Your task to perform on an android device: open device folders in google photos Image 0: 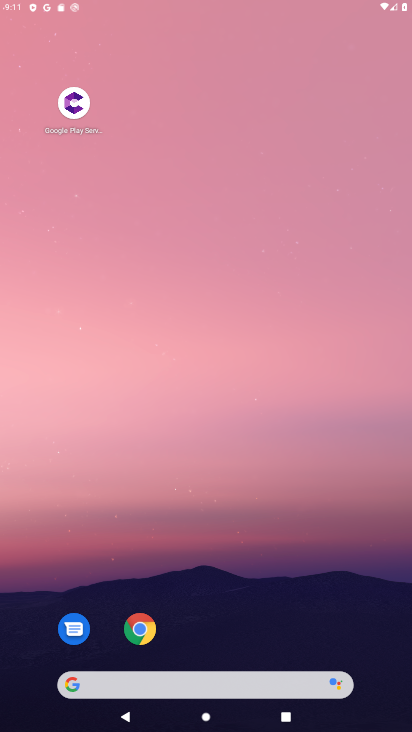
Step 0: drag from (215, 376) to (235, 150)
Your task to perform on an android device: open device folders in google photos Image 1: 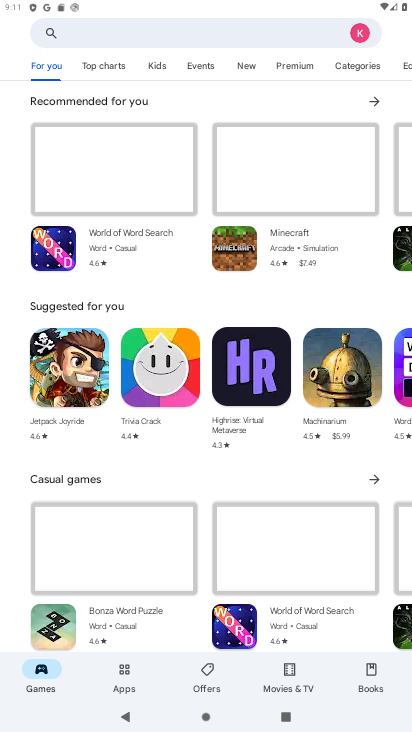
Step 1: press home button
Your task to perform on an android device: open device folders in google photos Image 2: 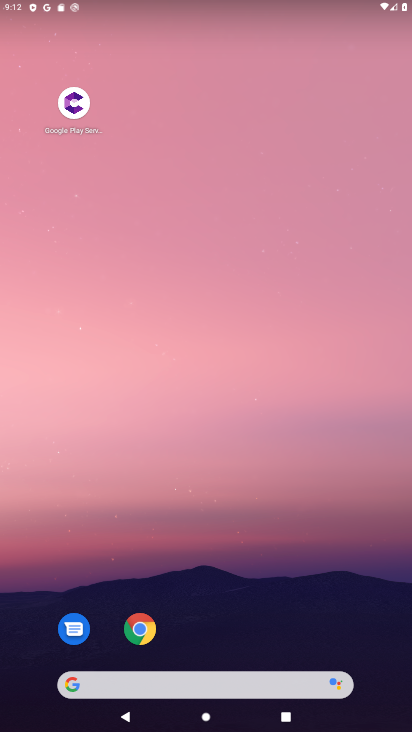
Step 2: drag from (248, 631) to (261, 37)
Your task to perform on an android device: open device folders in google photos Image 3: 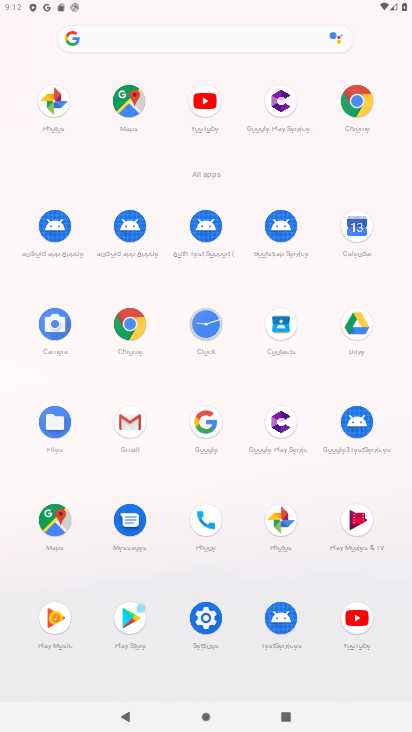
Step 3: click (285, 538)
Your task to perform on an android device: open device folders in google photos Image 4: 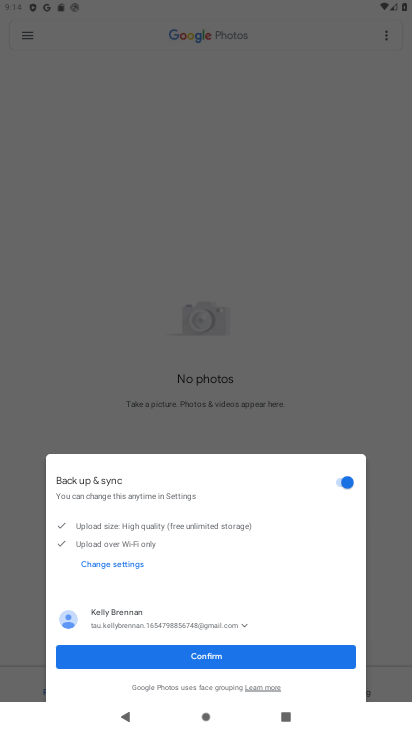
Step 4: press home button
Your task to perform on an android device: open device folders in google photos Image 5: 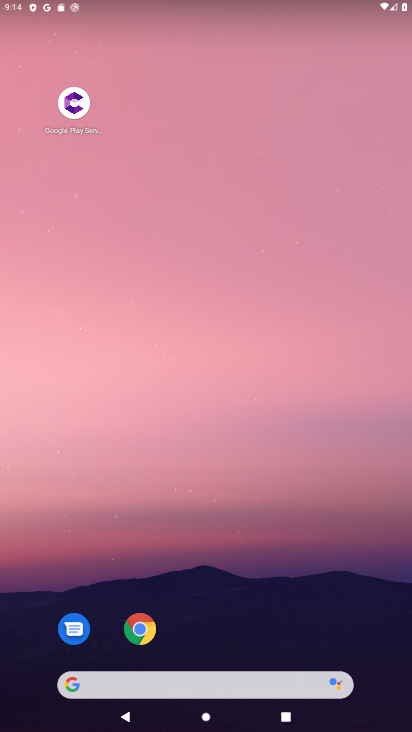
Step 5: drag from (272, 621) to (307, 93)
Your task to perform on an android device: open device folders in google photos Image 6: 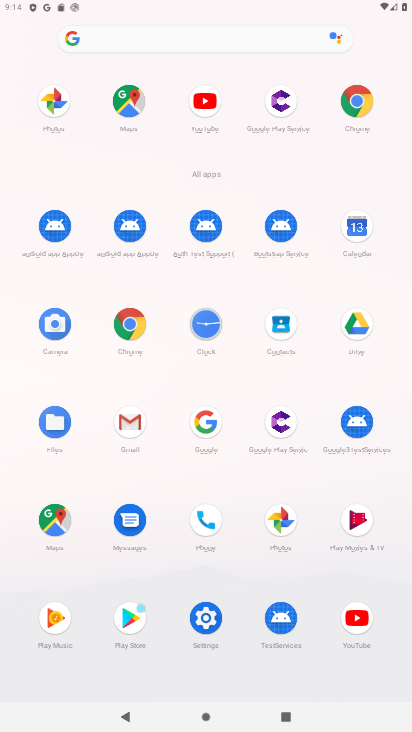
Step 6: click (43, 99)
Your task to perform on an android device: open device folders in google photos Image 7: 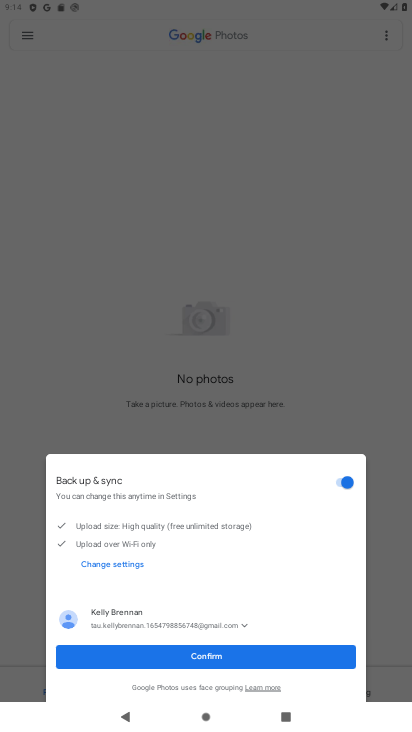
Step 7: click (196, 654)
Your task to perform on an android device: open device folders in google photos Image 8: 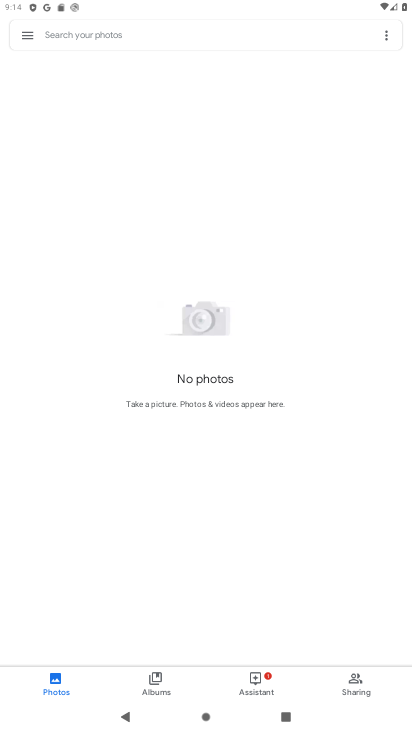
Step 8: click (24, 41)
Your task to perform on an android device: open device folders in google photos Image 9: 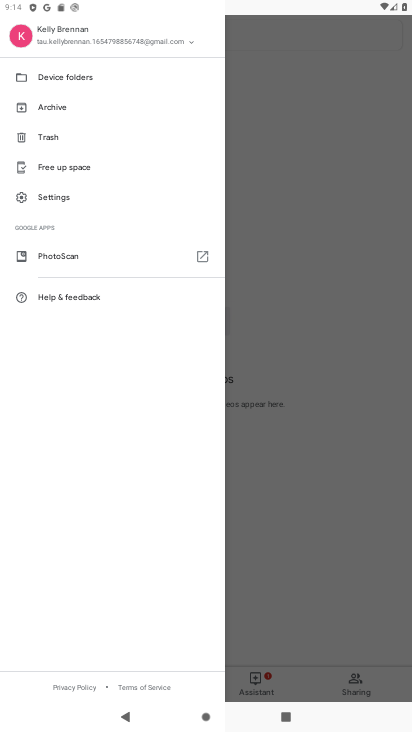
Step 9: click (57, 83)
Your task to perform on an android device: open device folders in google photos Image 10: 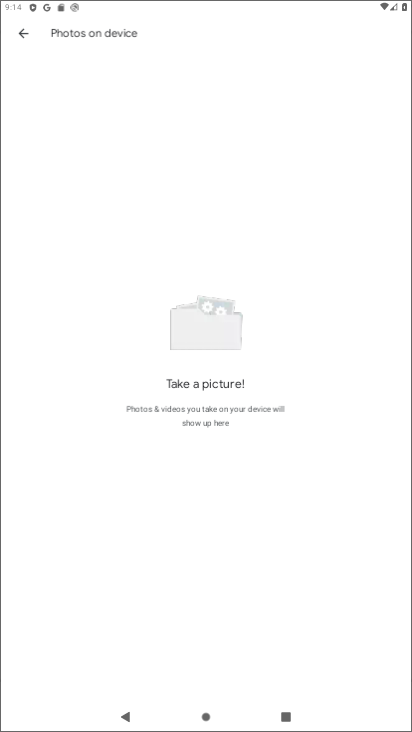
Step 10: task complete